Your task to perform on an android device: When is my next meeting? Image 0: 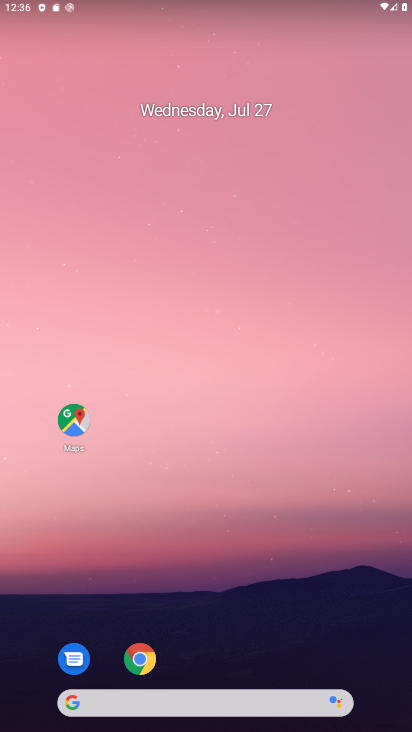
Step 0: drag from (279, 548) to (256, 11)
Your task to perform on an android device: When is my next meeting? Image 1: 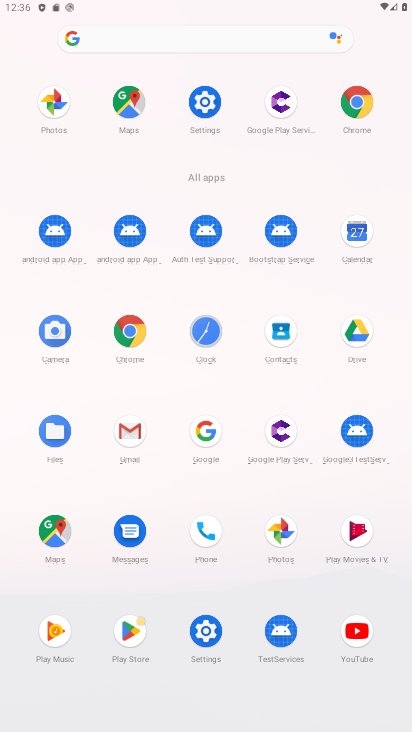
Step 1: click (366, 229)
Your task to perform on an android device: When is my next meeting? Image 2: 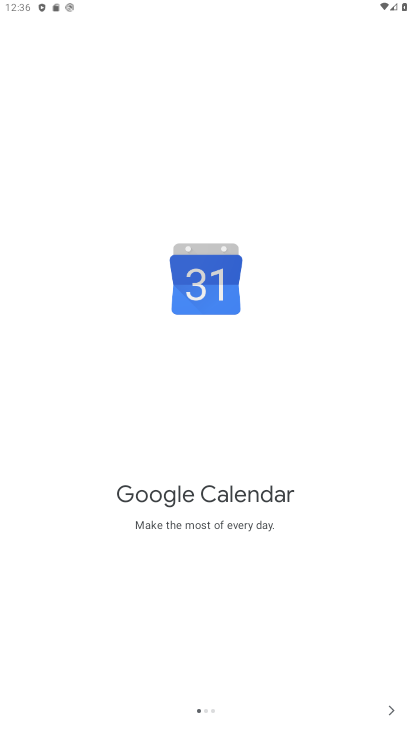
Step 2: click (397, 719)
Your task to perform on an android device: When is my next meeting? Image 3: 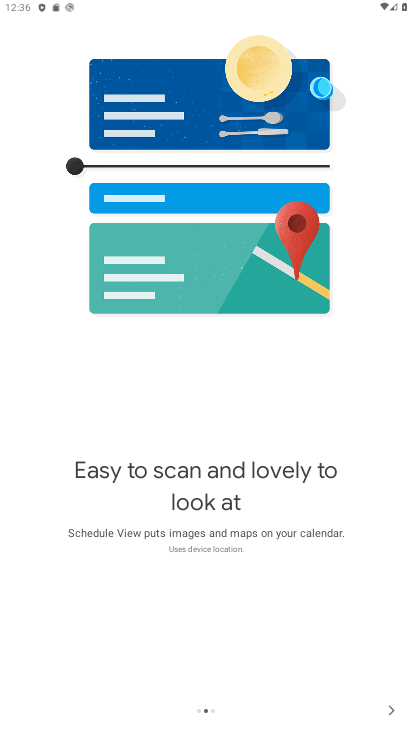
Step 3: click (397, 719)
Your task to perform on an android device: When is my next meeting? Image 4: 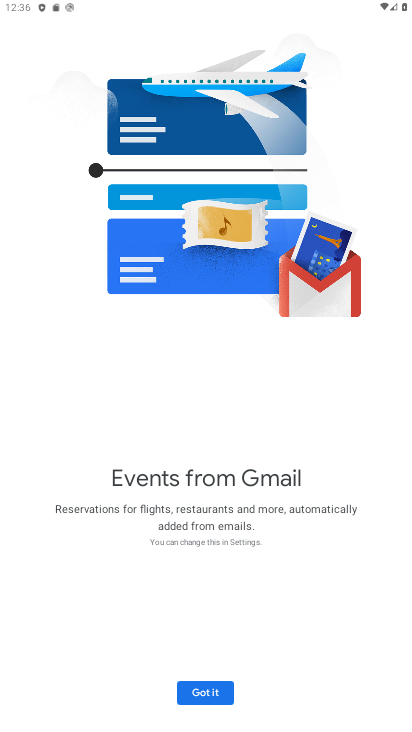
Step 4: click (222, 683)
Your task to perform on an android device: When is my next meeting? Image 5: 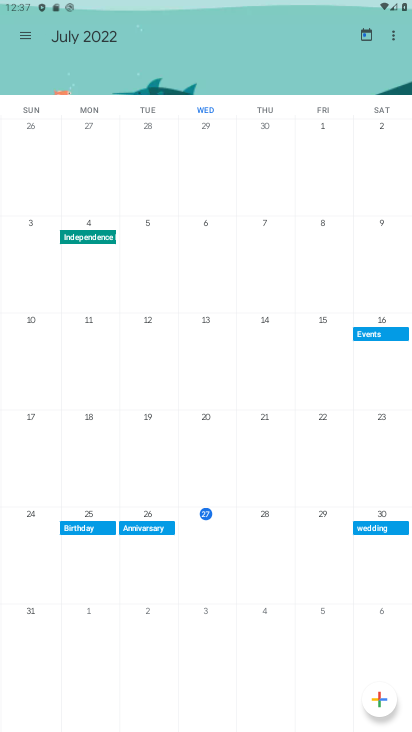
Step 5: click (26, 37)
Your task to perform on an android device: When is my next meeting? Image 6: 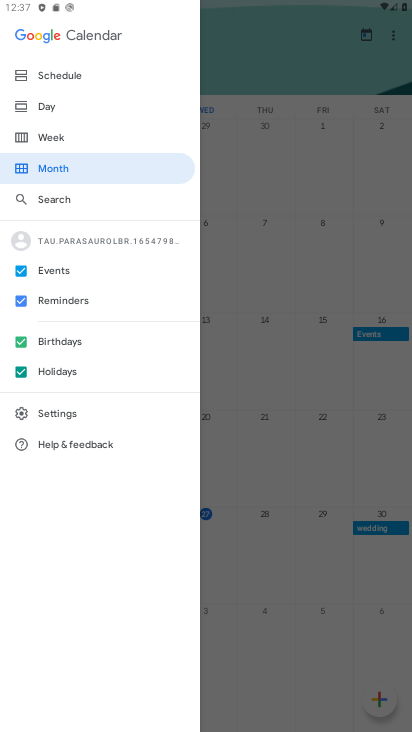
Step 6: click (65, 145)
Your task to perform on an android device: When is my next meeting? Image 7: 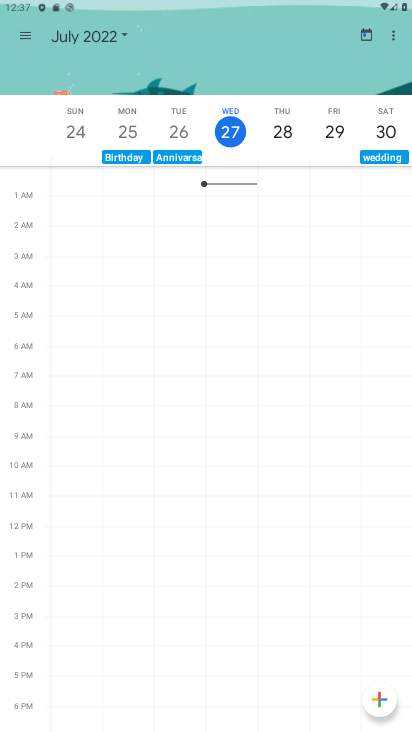
Step 7: task complete